Your task to perform on an android device: remove spam from my inbox in the gmail app Image 0: 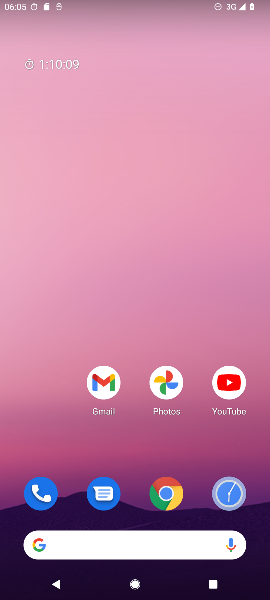
Step 0: drag from (67, 459) to (89, 110)
Your task to perform on an android device: remove spam from my inbox in the gmail app Image 1: 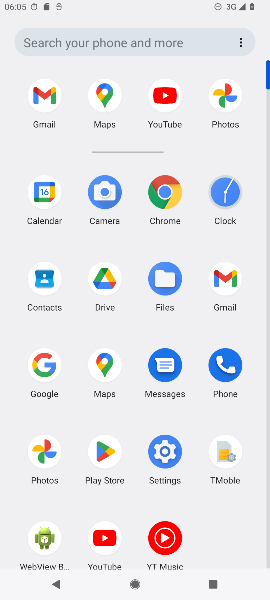
Step 1: click (229, 280)
Your task to perform on an android device: remove spam from my inbox in the gmail app Image 2: 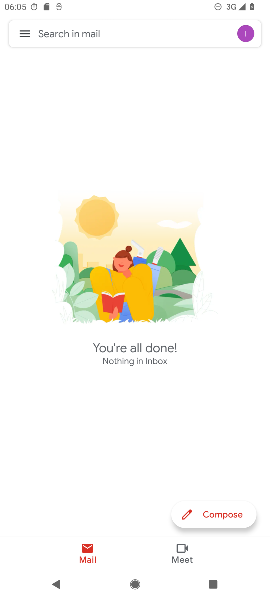
Step 2: click (24, 29)
Your task to perform on an android device: remove spam from my inbox in the gmail app Image 3: 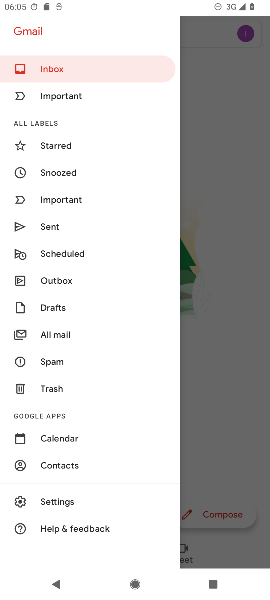
Step 3: drag from (130, 371) to (144, 215)
Your task to perform on an android device: remove spam from my inbox in the gmail app Image 4: 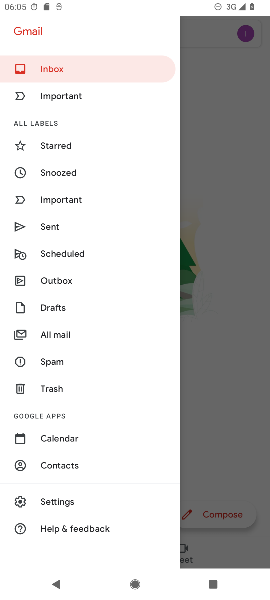
Step 4: click (62, 360)
Your task to perform on an android device: remove spam from my inbox in the gmail app Image 5: 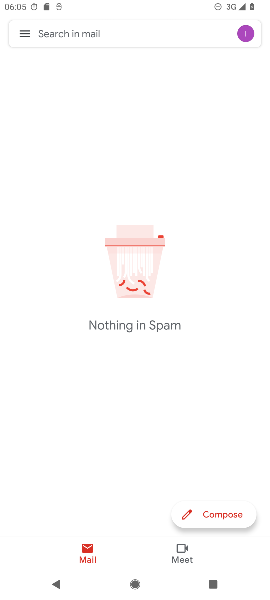
Step 5: task complete